Your task to perform on an android device: turn off notifications in google photos Image 0: 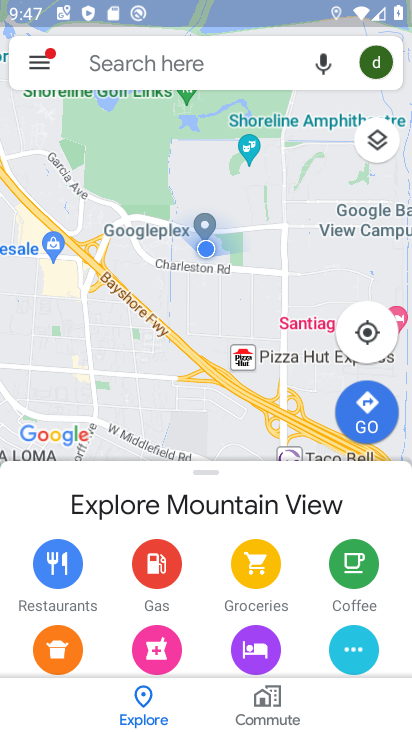
Step 0: press home button
Your task to perform on an android device: turn off notifications in google photos Image 1: 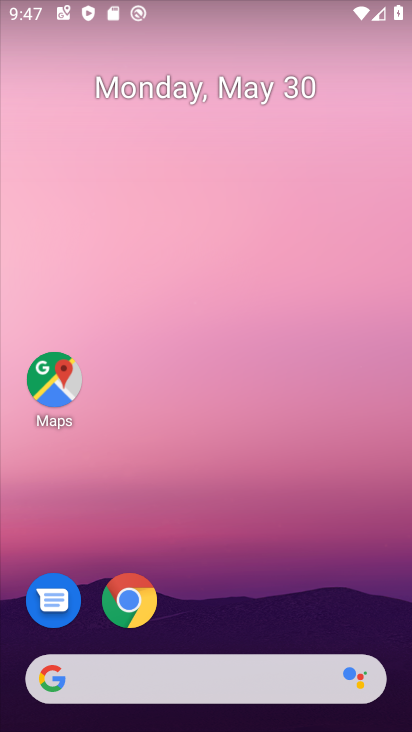
Step 1: drag from (264, 631) to (183, 162)
Your task to perform on an android device: turn off notifications in google photos Image 2: 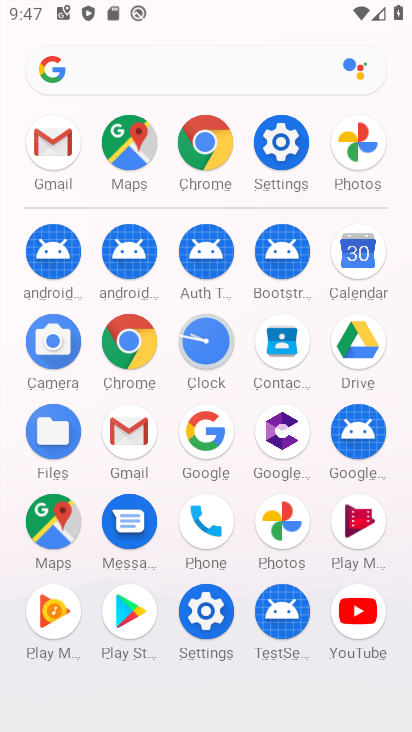
Step 2: click (368, 146)
Your task to perform on an android device: turn off notifications in google photos Image 3: 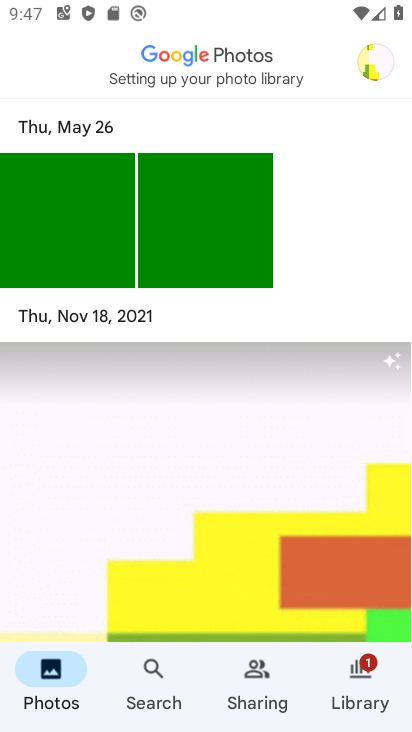
Step 3: click (383, 52)
Your task to perform on an android device: turn off notifications in google photos Image 4: 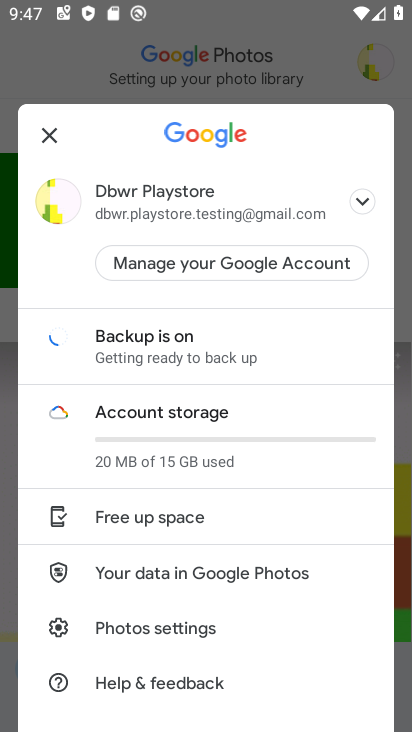
Step 4: drag from (329, 497) to (302, 260)
Your task to perform on an android device: turn off notifications in google photos Image 5: 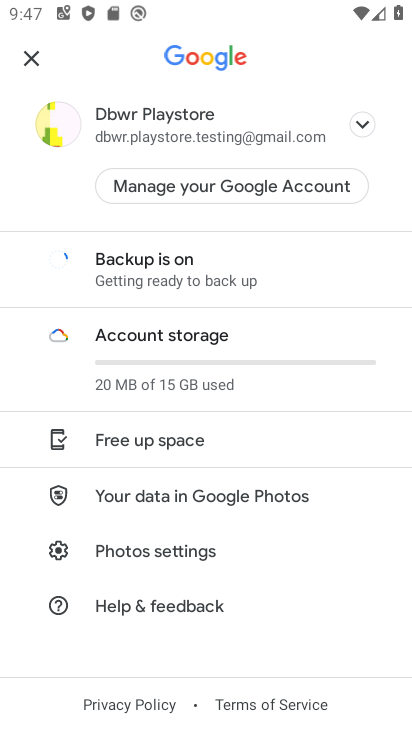
Step 5: click (158, 549)
Your task to perform on an android device: turn off notifications in google photos Image 6: 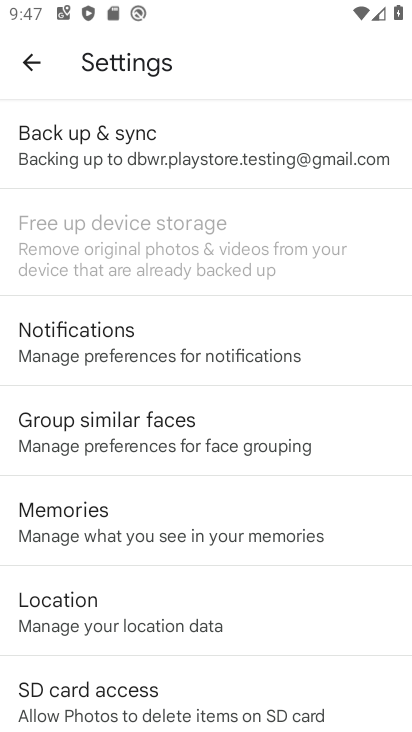
Step 6: click (127, 340)
Your task to perform on an android device: turn off notifications in google photos Image 7: 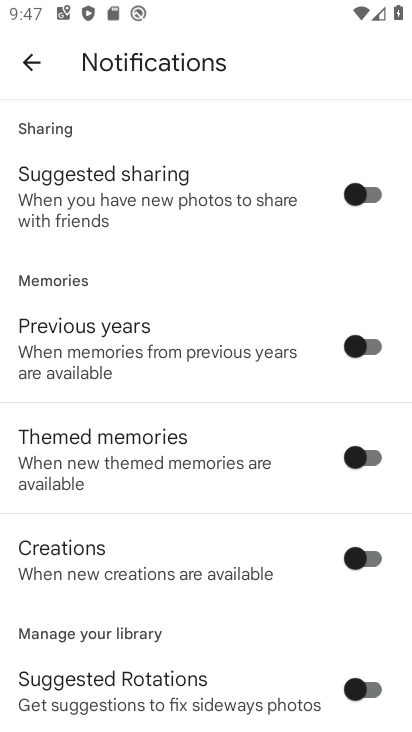
Step 7: drag from (176, 575) to (178, 115)
Your task to perform on an android device: turn off notifications in google photos Image 8: 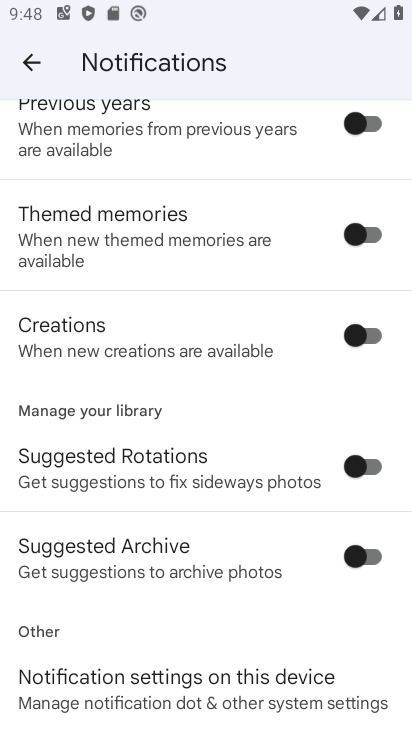
Step 8: click (116, 700)
Your task to perform on an android device: turn off notifications in google photos Image 9: 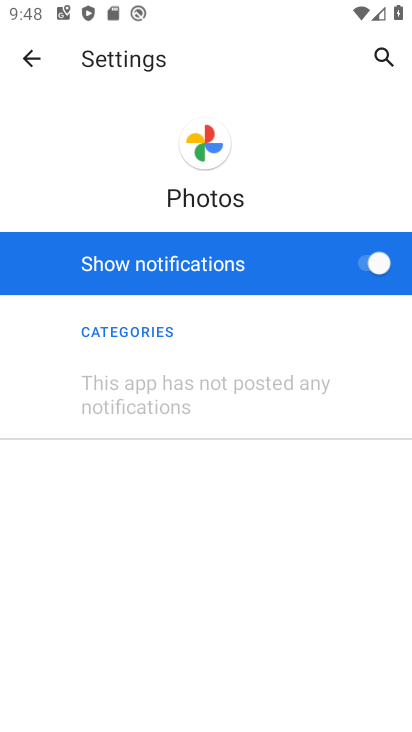
Step 9: click (370, 250)
Your task to perform on an android device: turn off notifications in google photos Image 10: 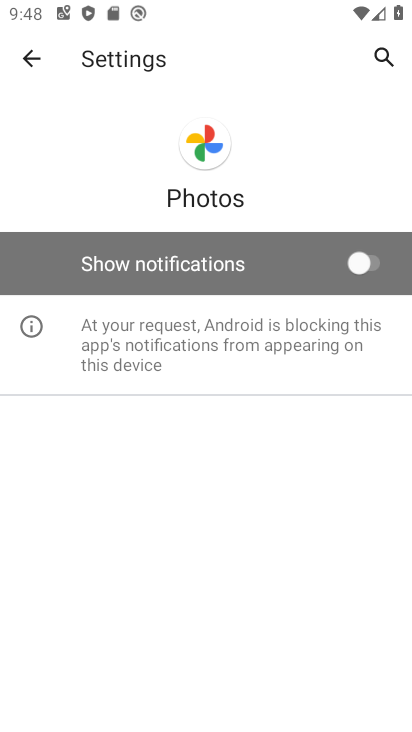
Step 10: task complete